Your task to perform on an android device: check android version Image 0: 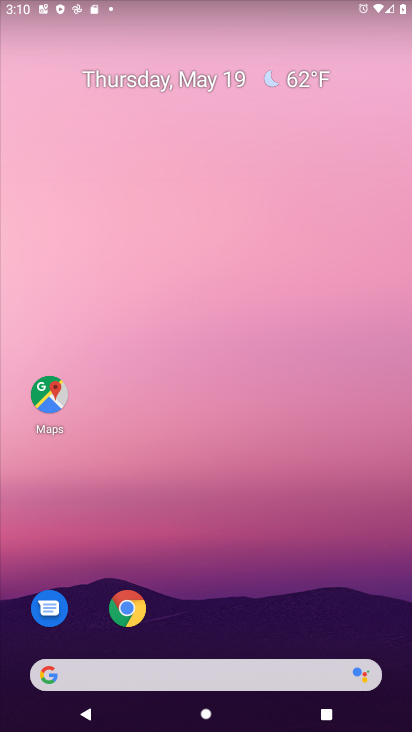
Step 0: drag from (191, 617) to (187, 119)
Your task to perform on an android device: check android version Image 1: 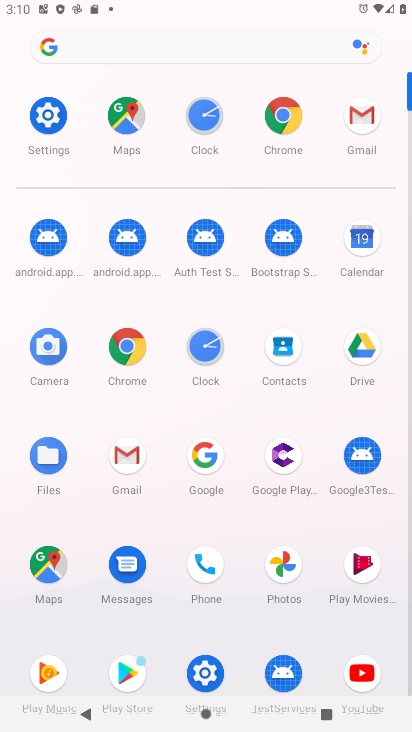
Step 1: click (31, 143)
Your task to perform on an android device: check android version Image 2: 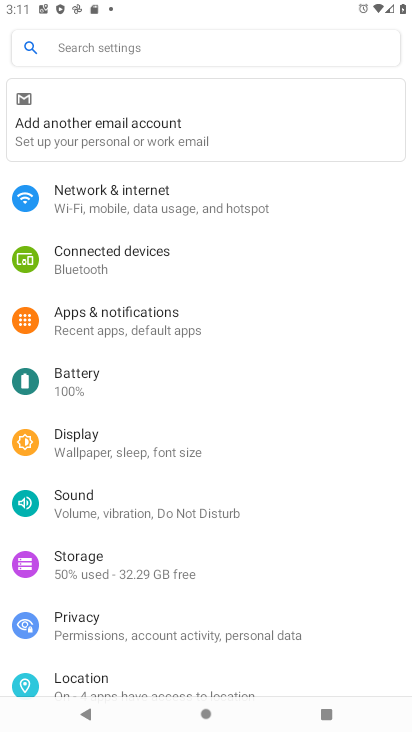
Step 2: drag from (176, 581) to (159, 275)
Your task to perform on an android device: check android version Image 3: 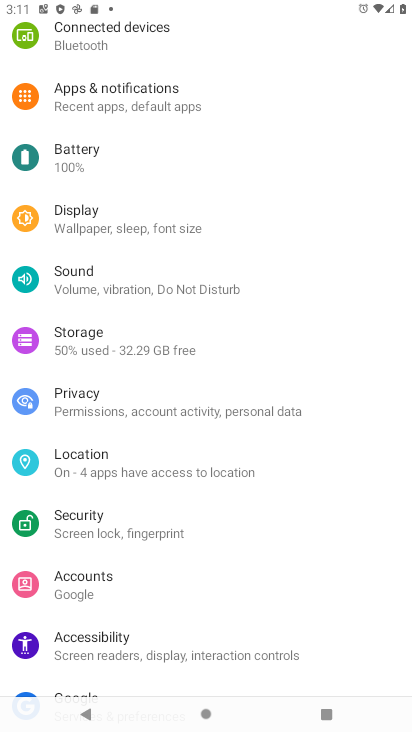
Step 3: drag from (260, 639) to (218, 367)
Your task to perform on an android device: check android version Image 4: 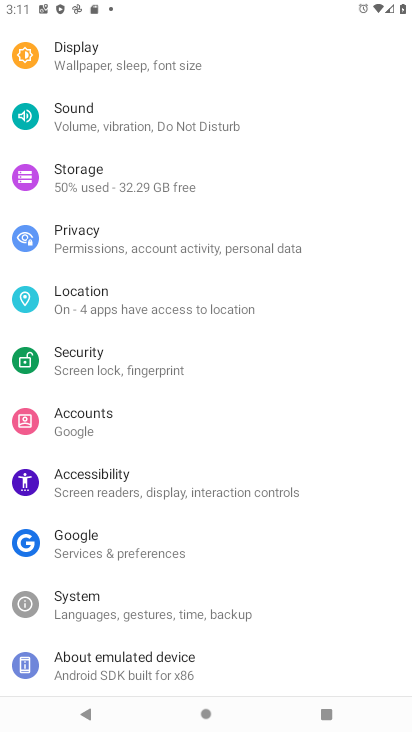
Step 4: click (207, 662)
Your task to perform on an android device: check android version Image 5: 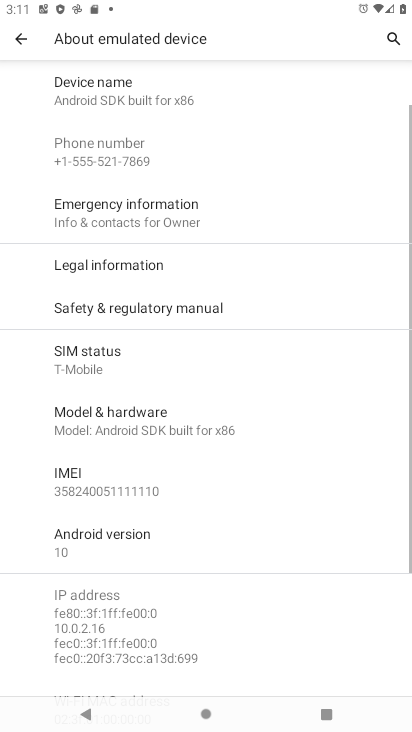
Step 5: click (190, 549)
Your task to perform on an android device: check android version Image 6: 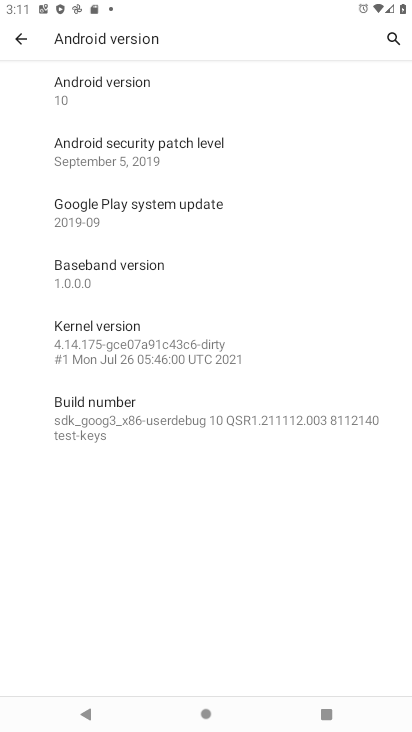
Step 6: task complete